Your task to perform on an android device: Toggle the flashlight Image 0: 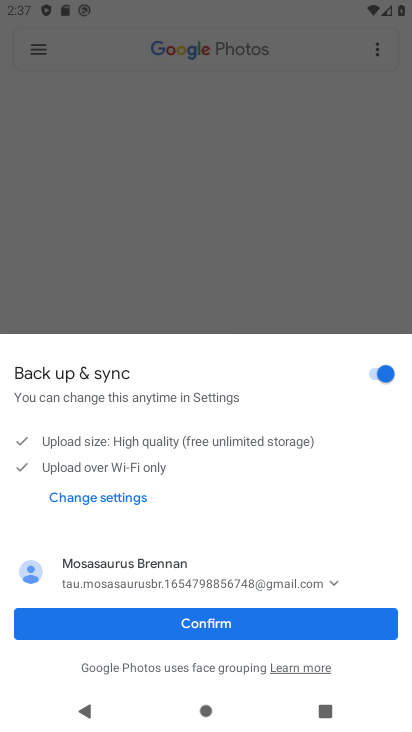
Step 0: press home button
Your task to perform on an android device: Toggle the flashlight Image 1: 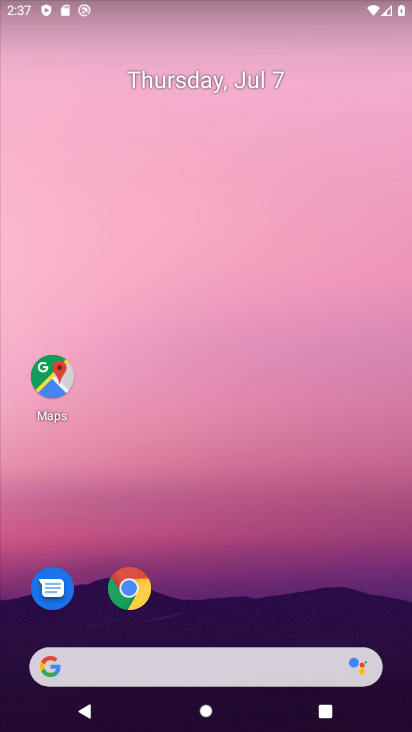
Step 1: task complete